Your task to perform on an android device: empty trash in google photos Image 0: 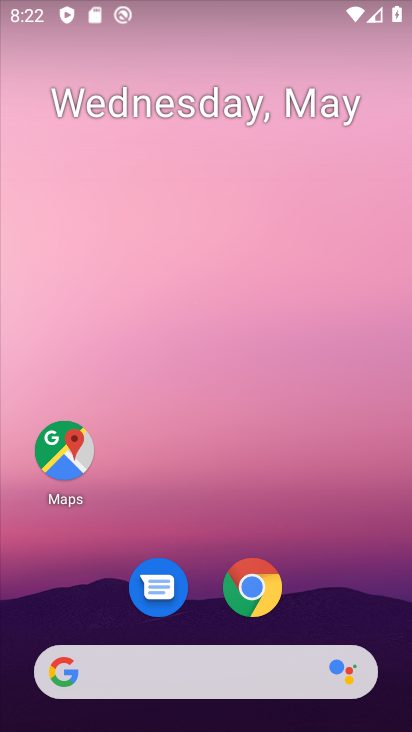
Step 0: drag from (205, 606) to (225, 241)
Your task to perform on an android device: empty trash in google photos Image 1: 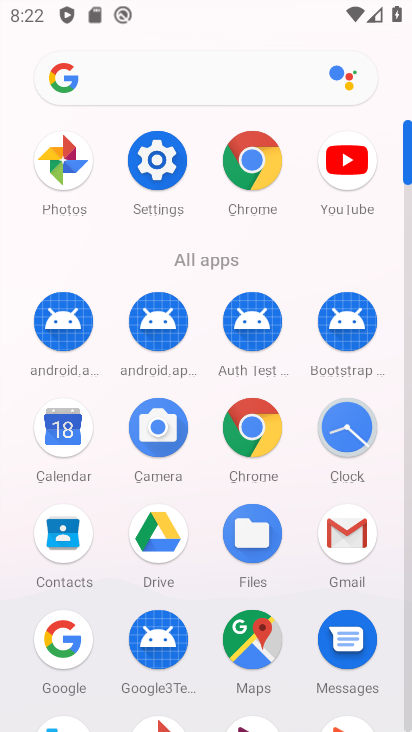
Step 1: drag from (202, 550) to (246, 292)
Your task to perform on an android device: empty trash in google photos Image 2: 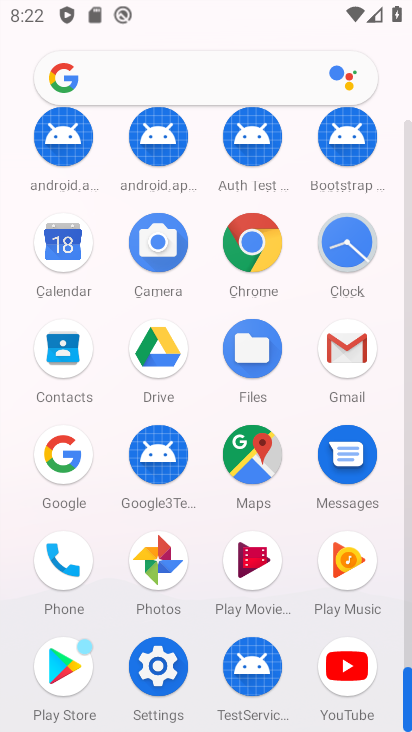
Step 2: click (167, 558)
Your task to perform on an android device: empty trash in google photos Image 3: 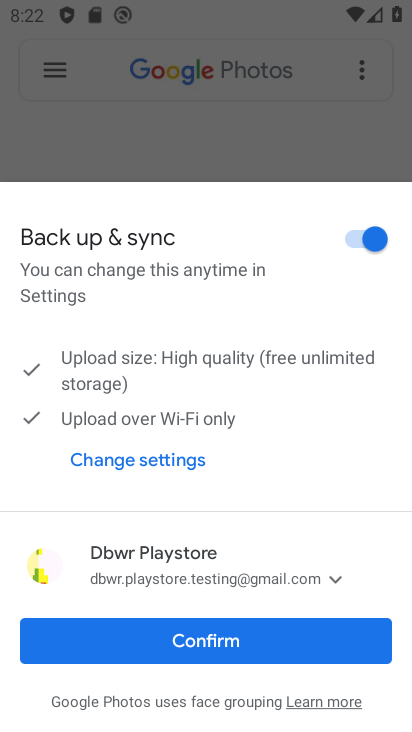
Step 3: click (241, 643)
Your task to perform on an android device: empty trash in google photos Image 4: 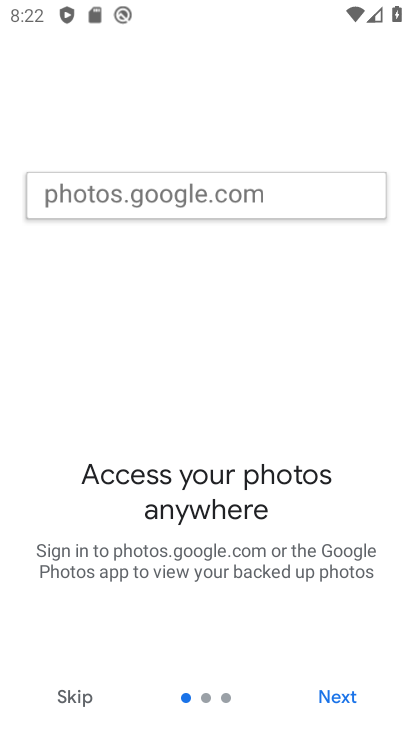
Step 4: click (70, 700)
Your task to perform on an android device: empty trash in google photos Image 5: 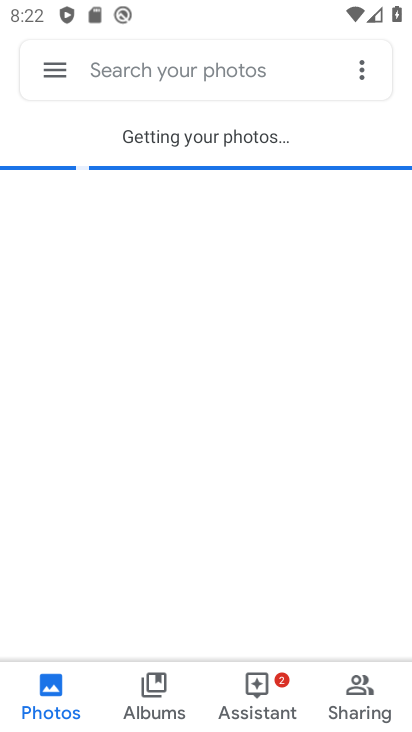
Step 5: click (60, 65)
Your task to perform on an android device: empty trash in google photos Image 6: 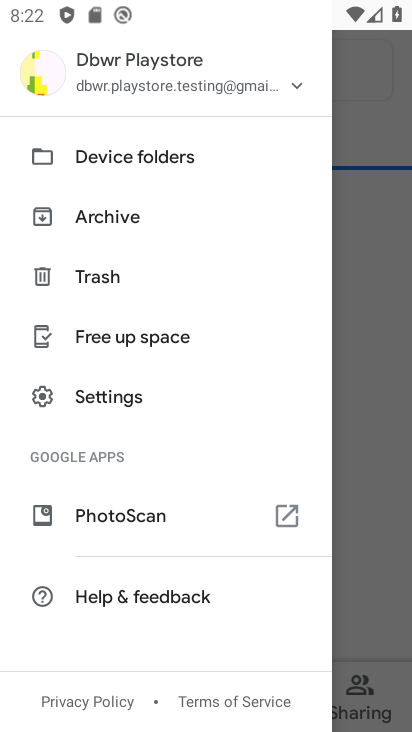
Step 6: click (92, 277)
Your task to perform on an android device: empty trash in google photos Image 7: 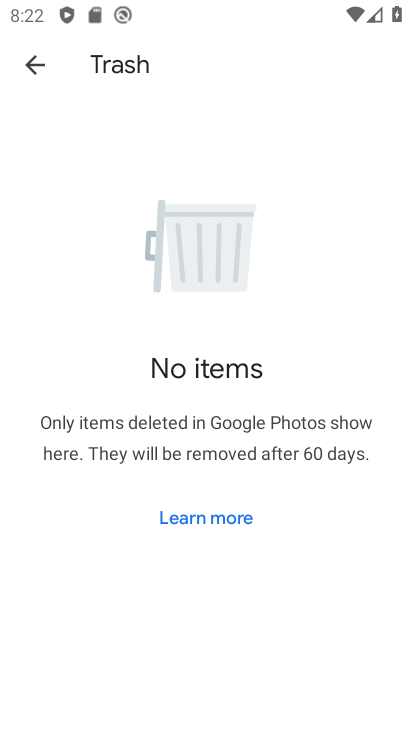
Step 7: task complete